Your task to perform on an android device: open wifi settings Image 0: 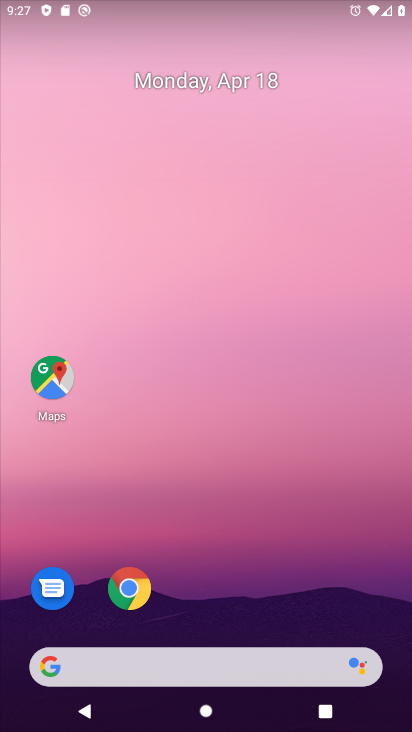
Step 0: drag from (304, 492) to (281, 231)
Your task to perform on an android device: open wifi settings Image 1: 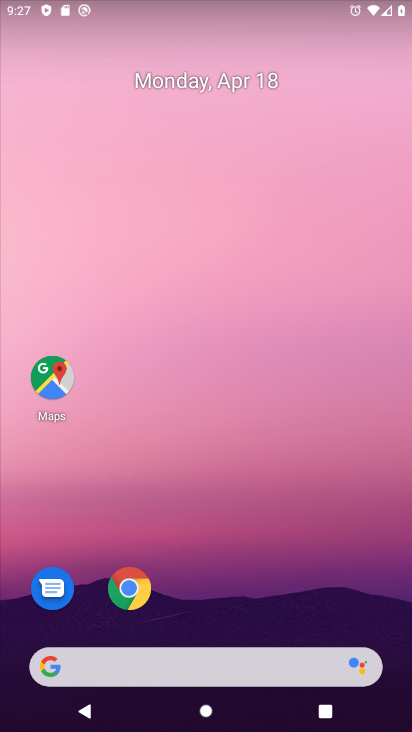
Step 1: drag from (219, 595) to (302, 172)
Your task to perform on an android device: open wifi settings Image 2: 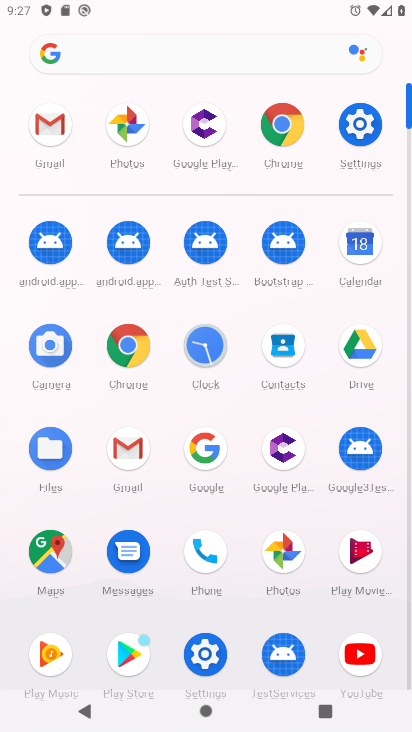
Step 2: click (366, 122)
Your task to perform on an android device: open wifi settings Image 3: 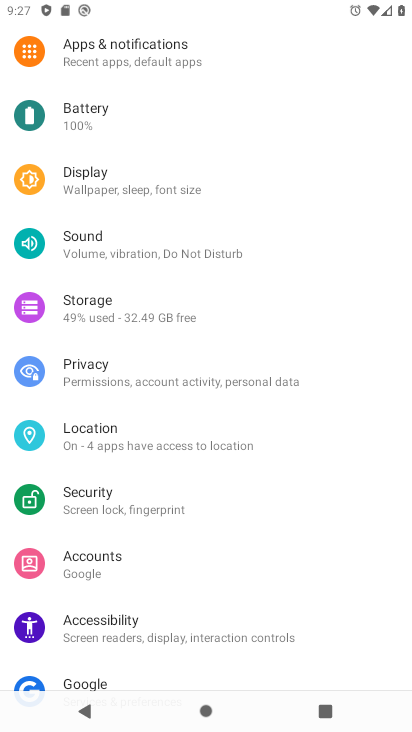
Step 3: drag from (189, 525) to (182, 637)
Your task to perform on an android device: open wifi settings Image 4: 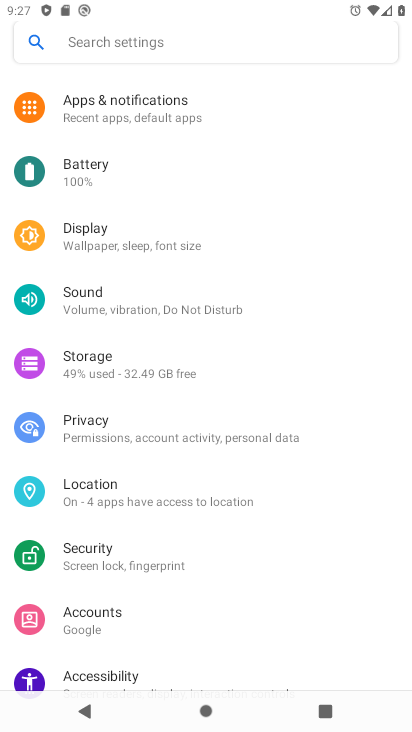
Step 4: drag from (280, 120) to (234, 671)
Your task to perform on an android device: open wifi settings Image 5: 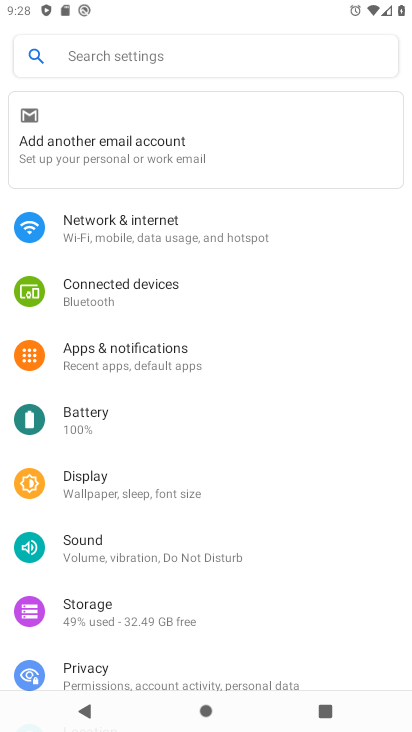
Step 5: click (149, 225)
Your task to perform on an android device: open wifi settings Image 6: 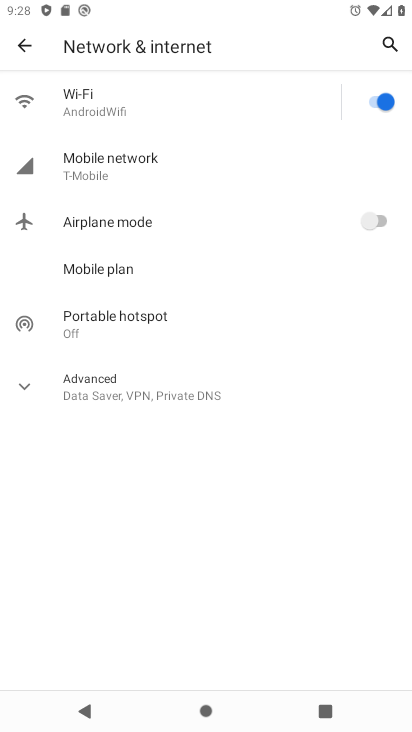
Step 6: click (218, 94)
Your task to perform on an android device: open wifi settings Image 7: 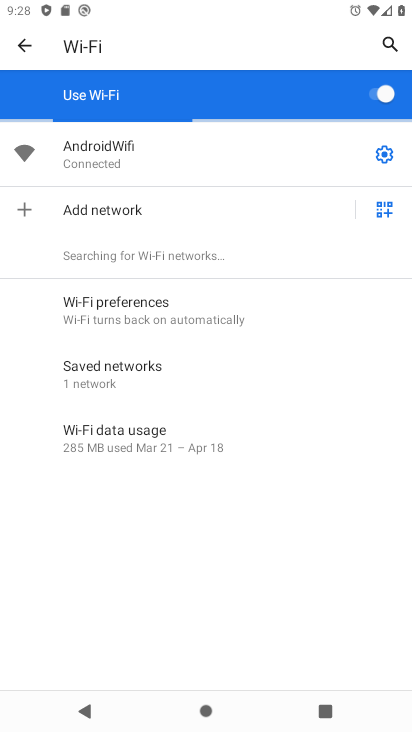
Step 7: task complete